Your task to perform on an android device: Go to sound settings Image 0: 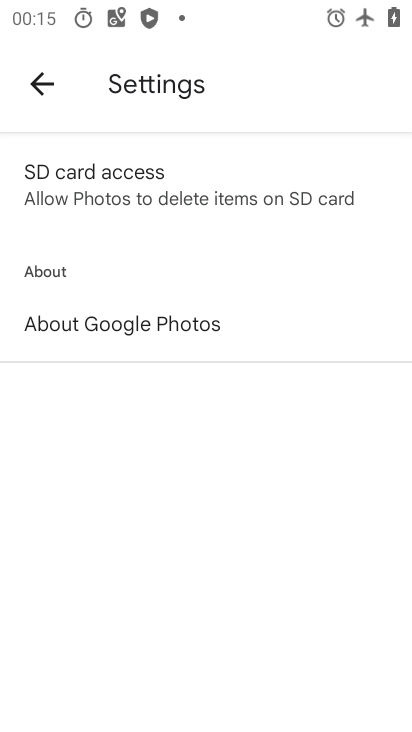
Step 0: press home button
Your task to perform on an android device: Go to sound settings Image 1: 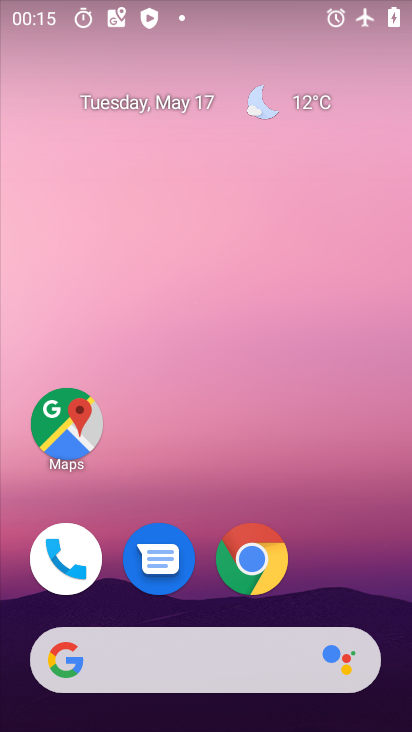
Step 1: drag from (312, 501) to (156, 1)
Your task to perform on an android device: Go to sound settings Image 2: 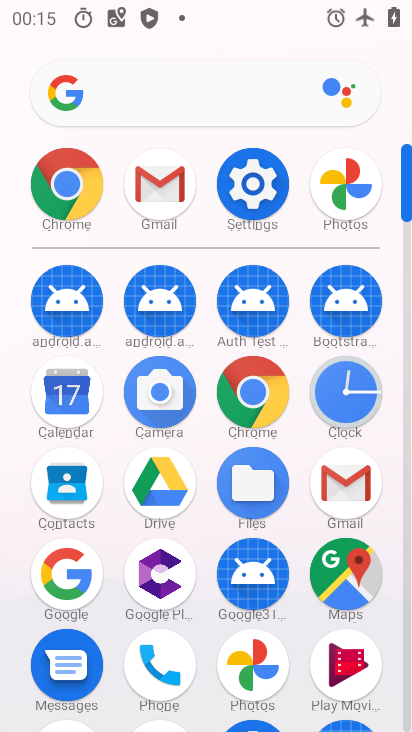
Step 2: click (236, 171)
Your task to perform on an android device: Go to sound settings Image 3: 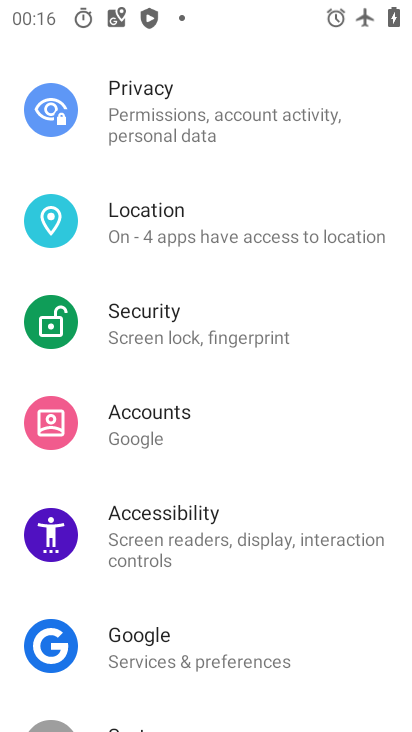
Step 3: drag from (237, 510) to (288, 731)
Your task to perform on an android device: Go to sound settings Image 4: 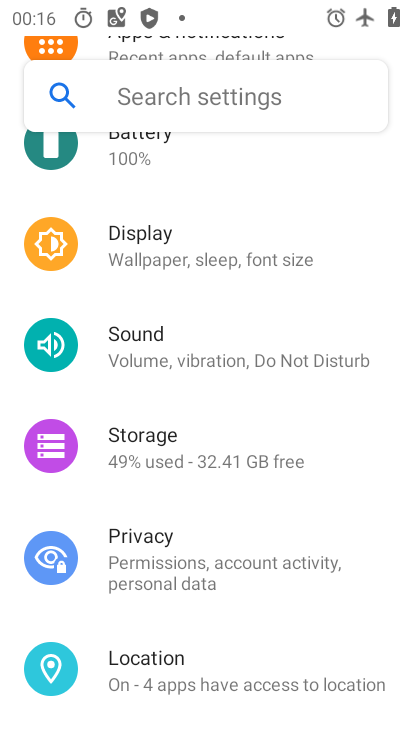
Step 4: click (186, 366)
Your task to perform on an android device: Go to sound settings Image 5: 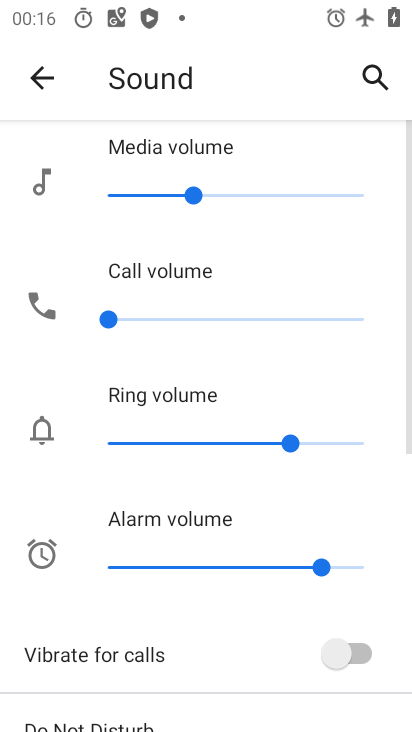
Step 5: task complete